Your task to perform on an android device: move a message to another label in the gmail app Image 0: 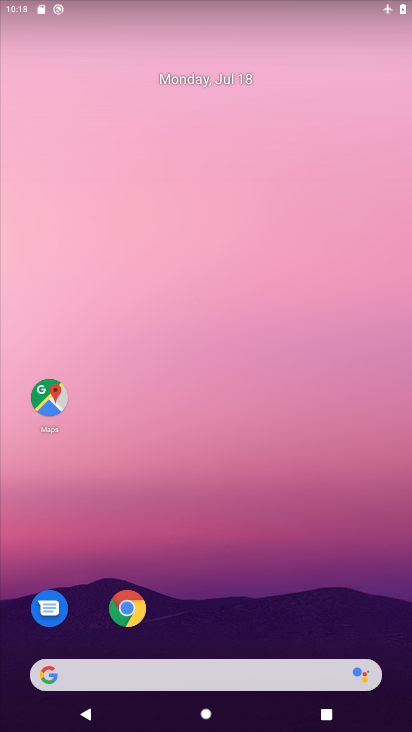
Step 0: drag from (218, 586) to (219, 62)
Your task to perform on an android device: move a message to another label in the gmail app Image 1: 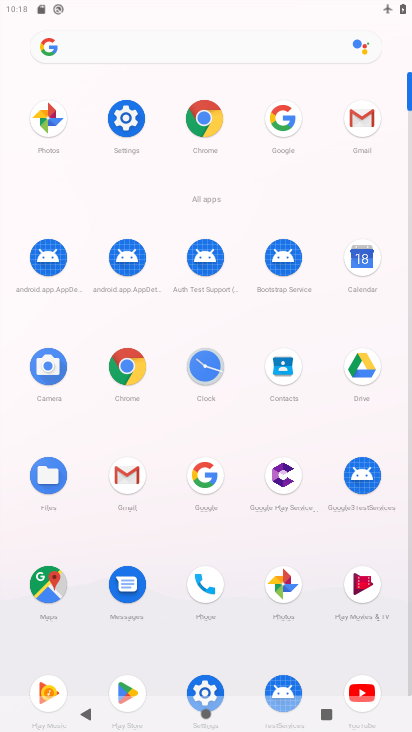
Step 1: click (119, 475)
Your task to perform on an android device: move a message to another label in the gmail app Image 2: 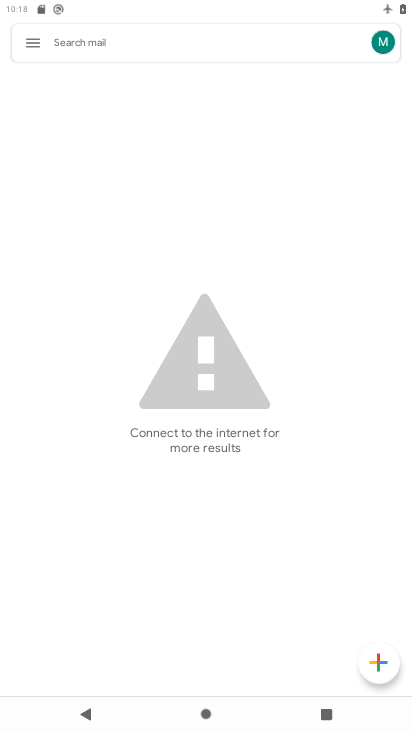
Step 2: task complete